Your task to perform on an android device: What's the weather going to be tomorrow? Image 0: 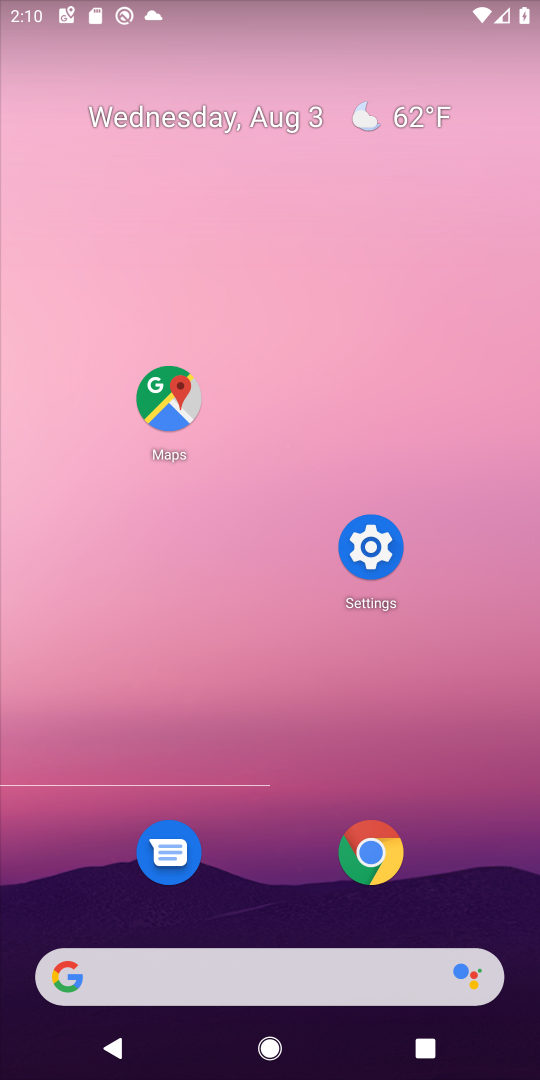
Step 0: press home button
Your task to perform on an android device: What's the weather going to be tomorrow? Image 1: 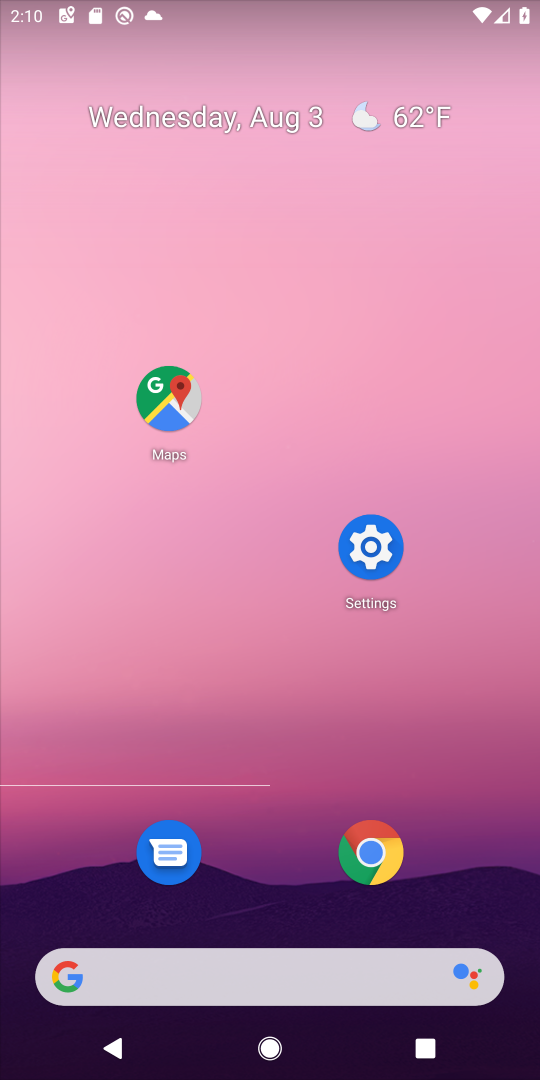
Step 1: click (158, 966)
Your task to perform on an android device: What's the weather going to be tomorrow? Image 2: 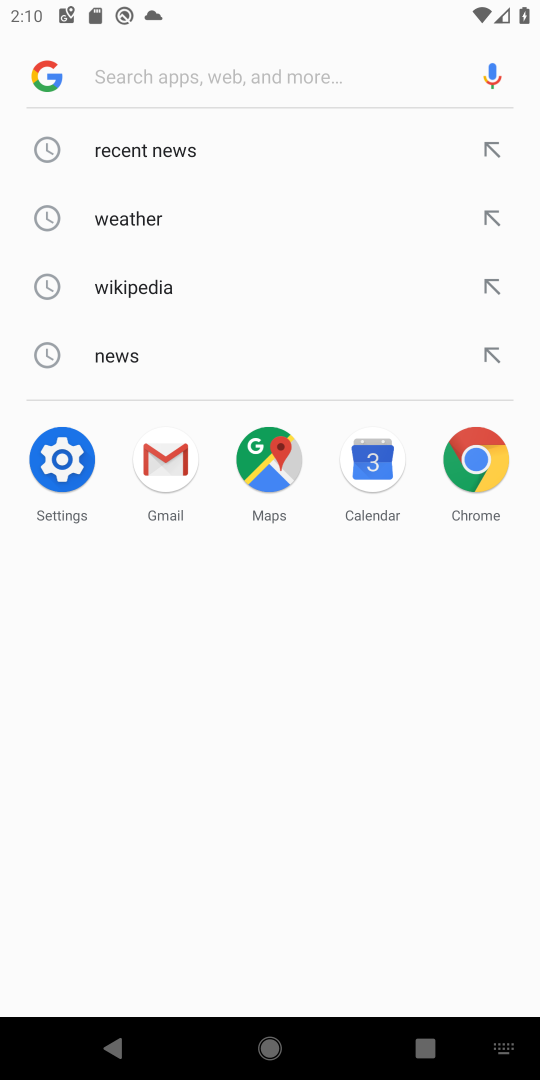
Step 2: click (121, 223)
Your task to perform on an android device: What's the weather going to be tomorrow? Image 3: 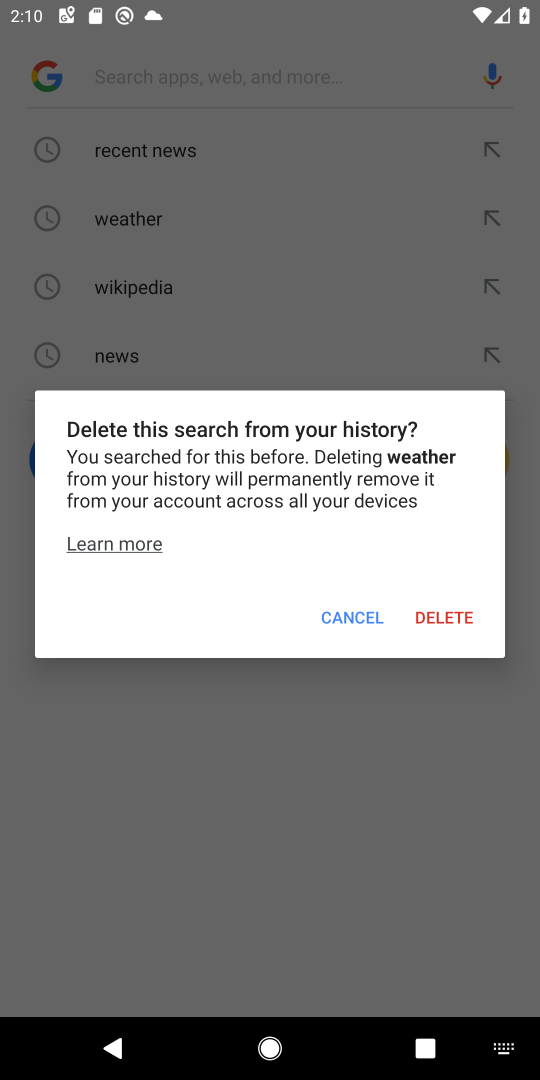
Step 3: click (350, 603)
Your task to perform on an android device: What's the weather going to be tomorrow? Image 4: 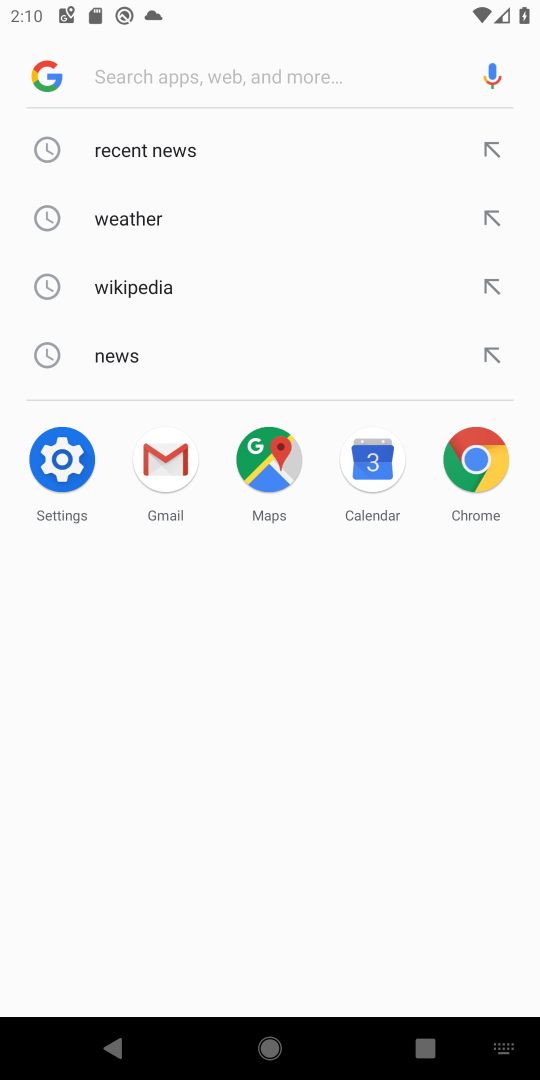
Step 4: click (95, 221)
Your task to perform on an android device: What's the weather going to be tomorrow? Image 5: 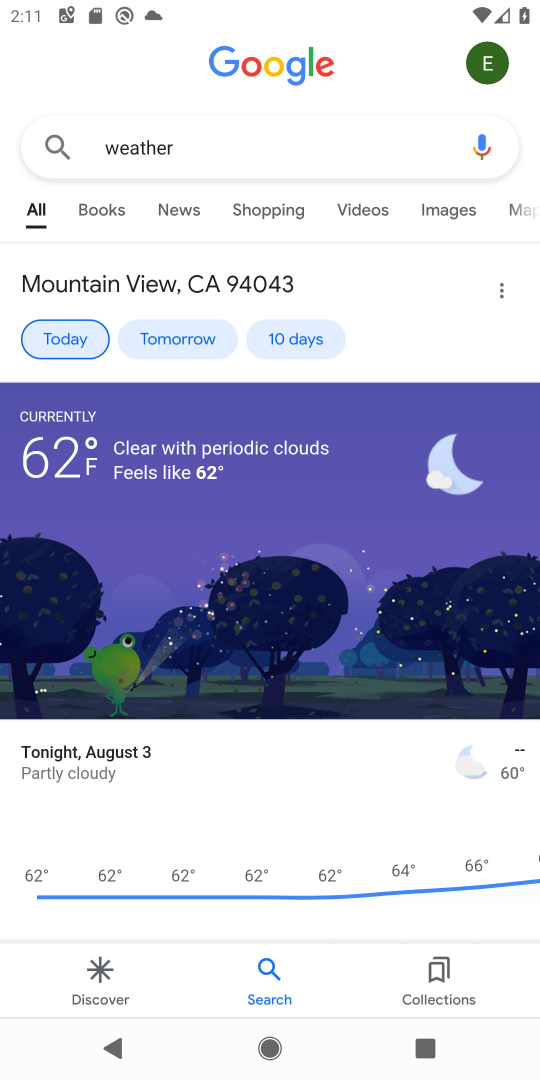
Step 5: click (145, 335)
Your task to perform on an android device: What's the weather going to be tomorrow? Image 6: 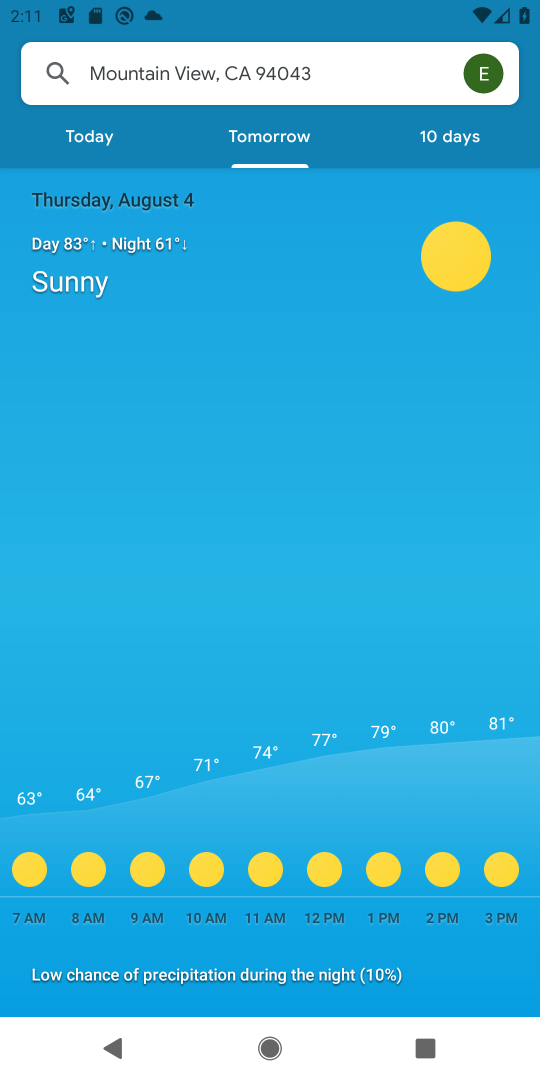
Step 6: task complete